Your task to perform on an android device: search for starred emails in the gmail app Image 0: 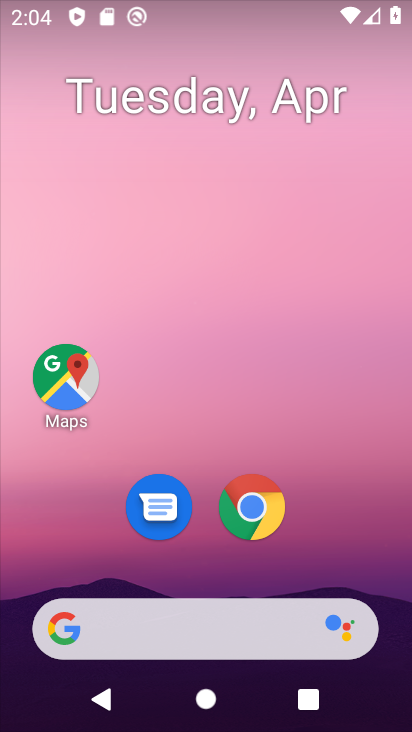
Step 0: click (315, 157)
Your task to perform on an android device: search for starred emails in the gmail app Image 1: 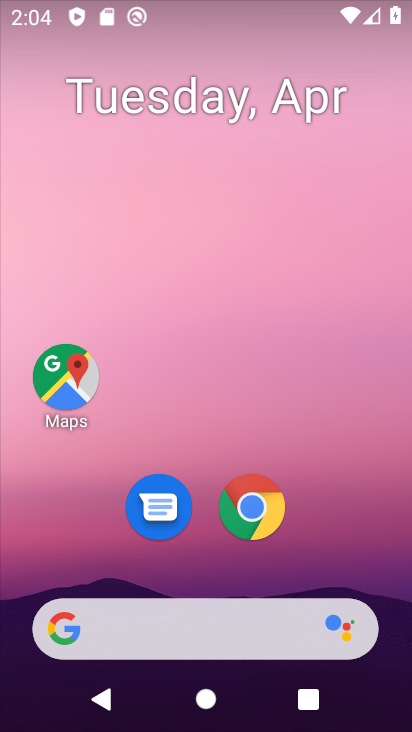
Step 1: drag from (295, 441) to (310, 110)
Your task to perform on an android device: search for starred emails in the gmail app Image 2: 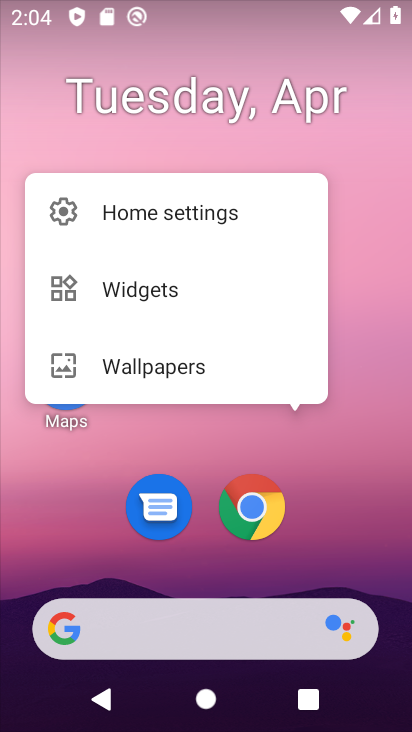
Step 2: click (379, 530)
Your task to perform on an android device: search for starred emails in the gmail app Image 3: 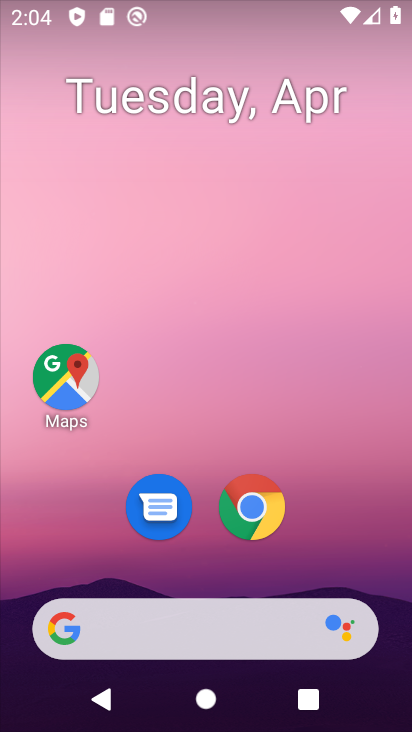
Step 3: drag from (342, 462) to (408, 53)
Your task to perform on an android device: search for starred emails in the gmail app Image 4: 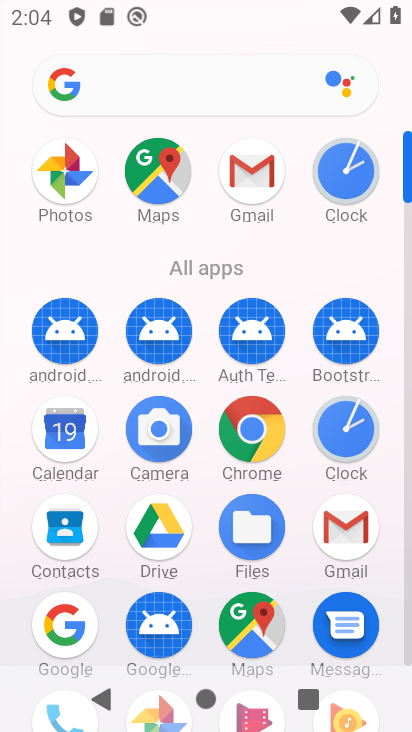
Step 4: click (350, 525)
Your task to perform on an android device: search for starred emails in the gmail app Image 5: 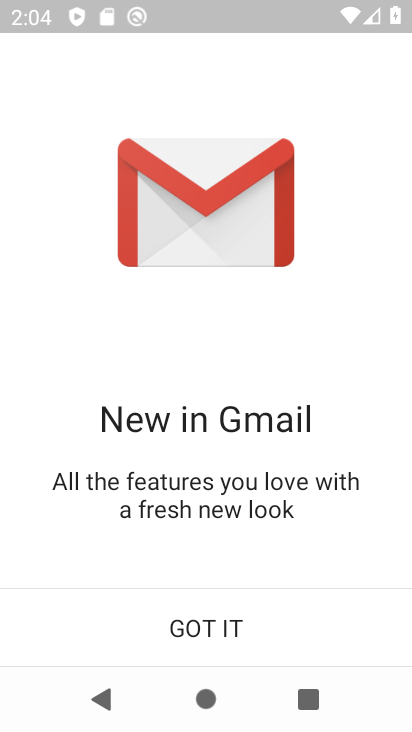
Step 5: click (218, 622)
Your task to perform on an android device: search for starred emails in the gmail app Image 6: 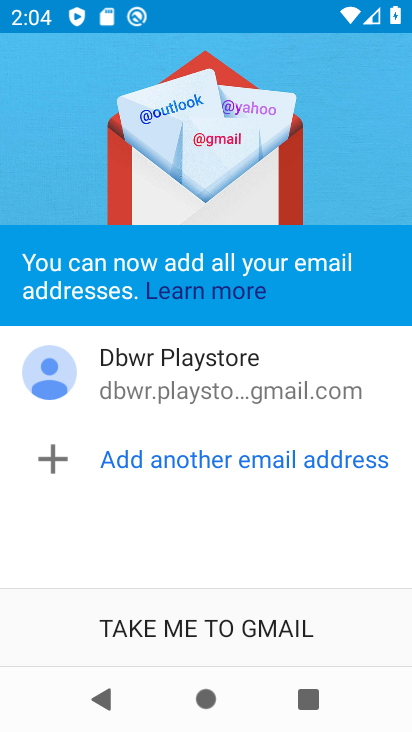
Step 6: click (258, 635)
Your task to perform on an android device: search for starred emails in the gmail app Image 7: 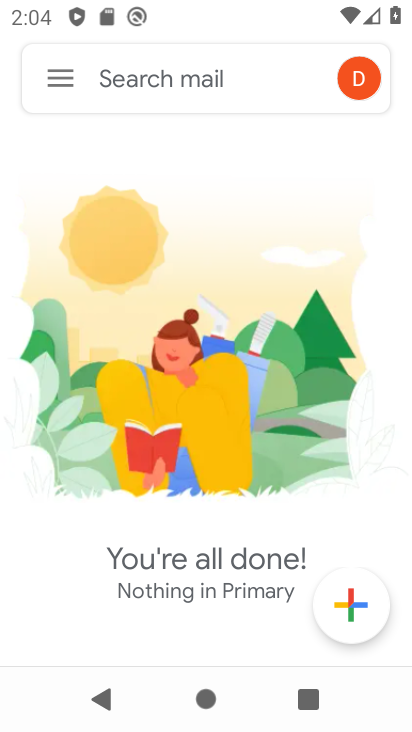
Step 7: click (69, 75)
Your task to perform on an android device: search for starred emails in the gmail app Image 8: 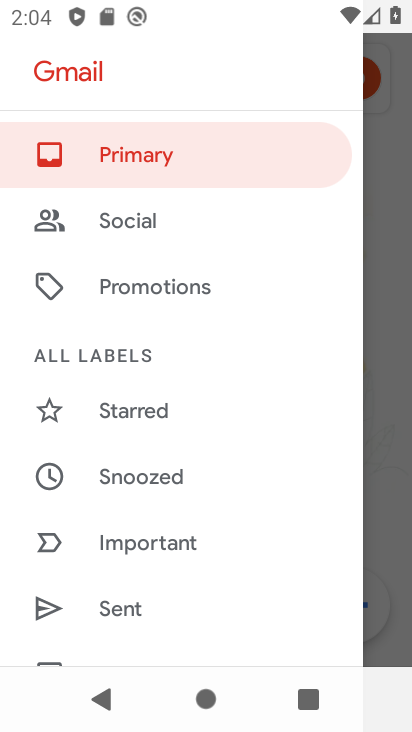
Step 8: click (156, 425)
Your task to perform on an android device: search for starred emails in the gmail app Image 9: 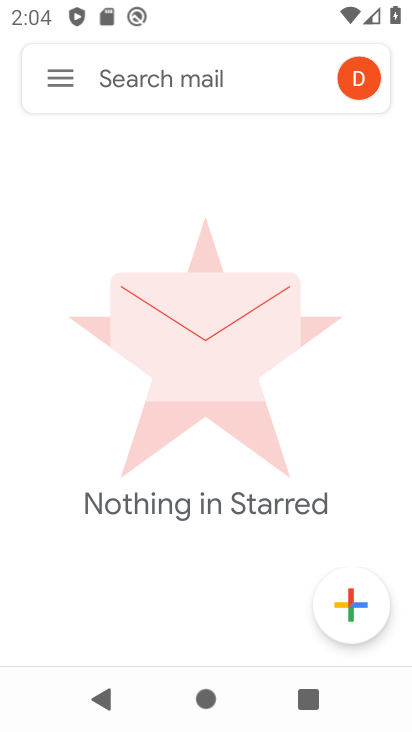
Step 9: task complete